Your task to perform on an android device: open chrome privacy settings Image 0: 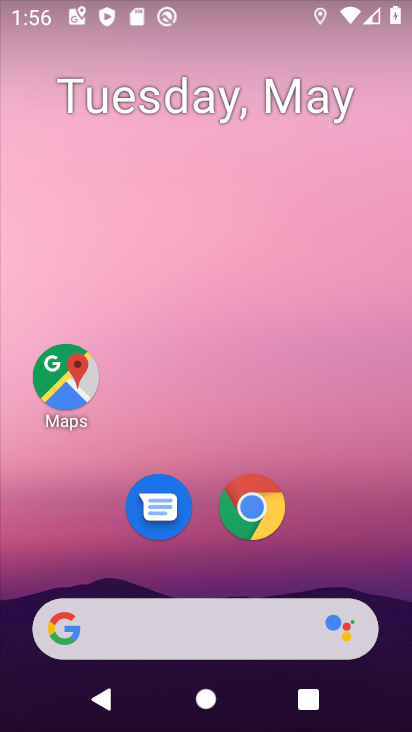
Step 0: click (252, 506)
Your task to perform on an android device: open chrome privacy settings Image 1: 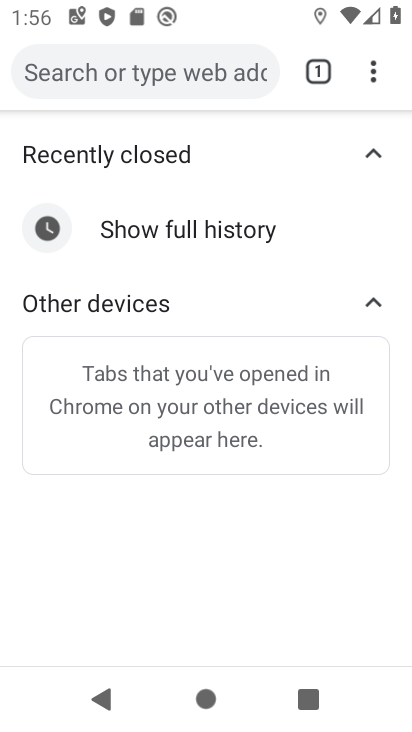
Step 1: click (382, 86)
Your task to perform on an android device: open chrome privacy settings Image 2: 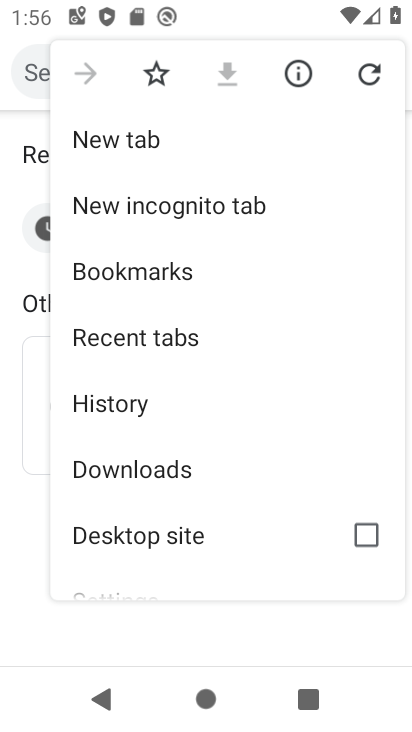
Step 2: drag from (174, 491) to (195, 196)
Your task to perform on an android device: open chrome privacy settings Image 3: 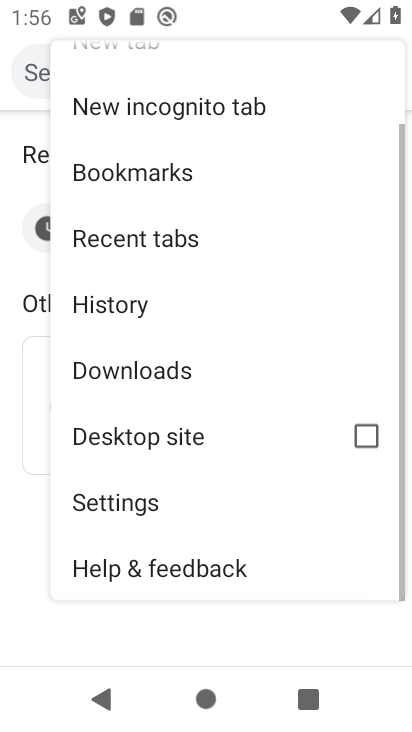
Step 3: click (137, 492)
Your task to perform on an android device: open chrome privacy settings Image 4: 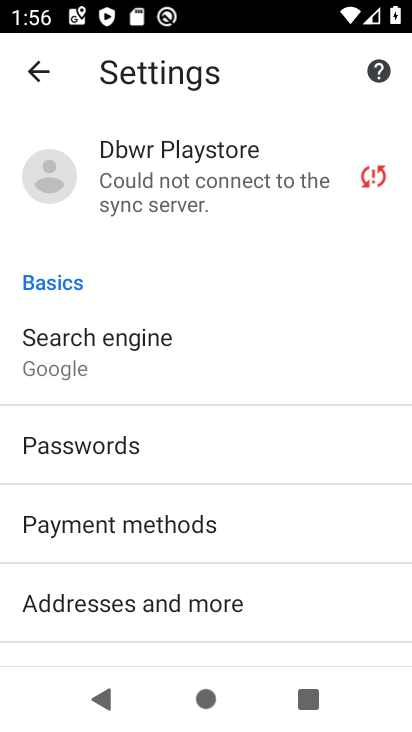
Step 4: drag from (212, 456) to (244, 294)
Your task to perform on an android device: open chrome privacy settings Image 5: 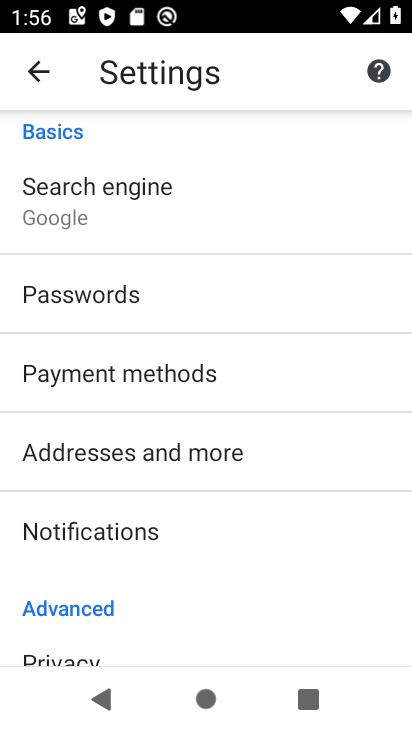
Step 5: drag from (184, 562) to (168, 289)
Your task to perform on an android device: open chrome privacy settings Image 6: 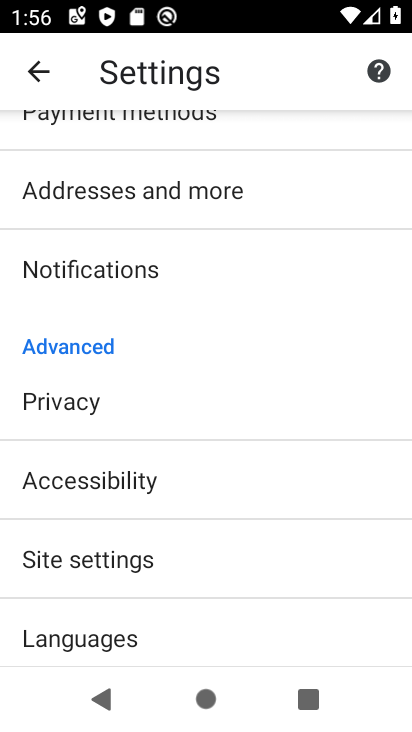
Step 6: click (92, 407)
Your task to perform on an android device: open chrome privacy settings Image 7: 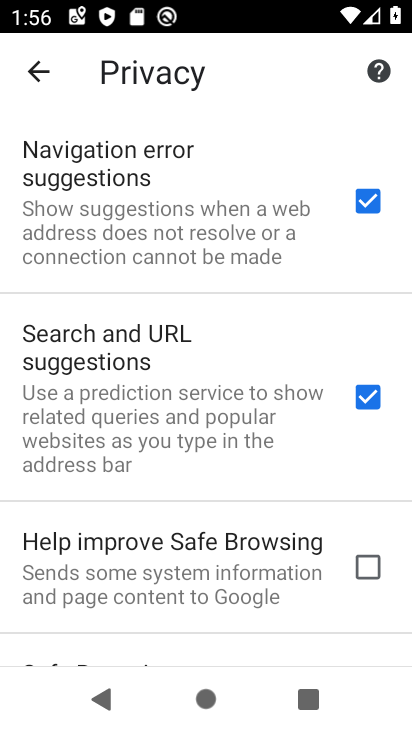
Step 7: task complete